Your task to perform on an android device: Show me popular games on the Play Store Image 0: 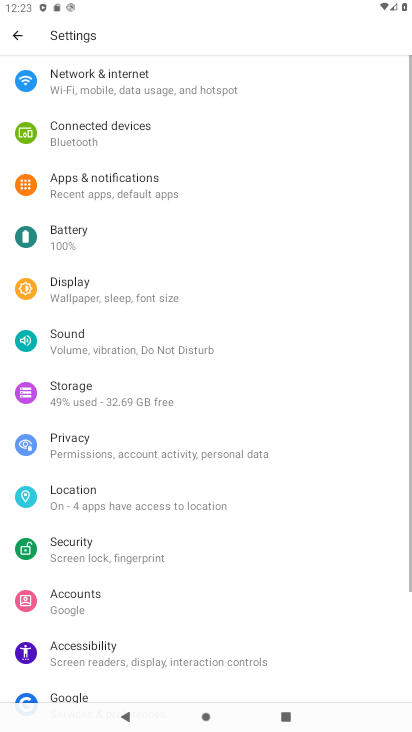
Step 0: press home button
Your task to perform on an android device: Show me popular games on the Play Store Image 1: 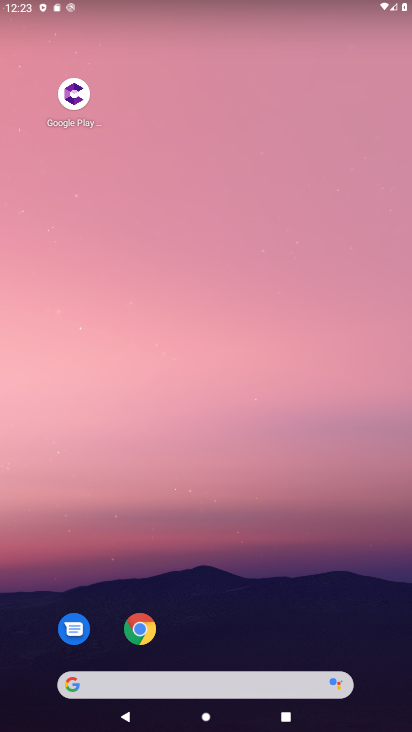
Step 1: drag from (183, 624) to (185, 358)
Your task to perform on an android device: Show me popular games on the Play Store Image 2: 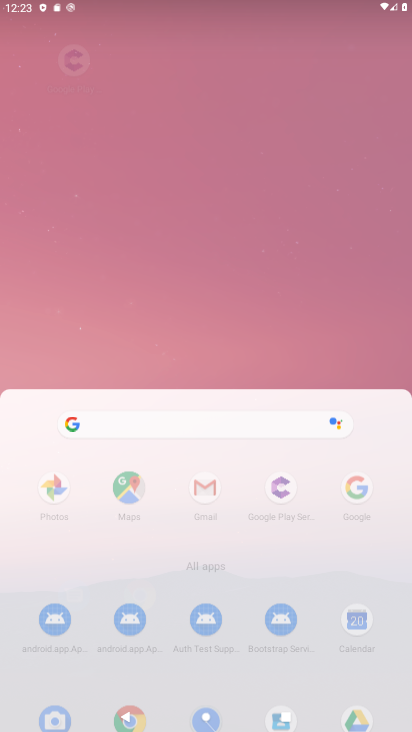
Step 2: drag from (170, 518) to (170, 175)
Your task to perform on an android device: Show me popular games on the Play Store Image 3: 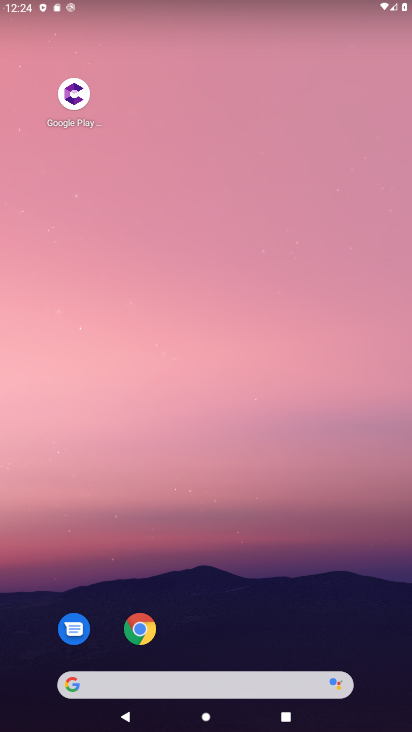
Step 3: drag from (174, 635) to (178, 219)
Your task to perform on an android device: Show me popular games on the Play Store Image 4: 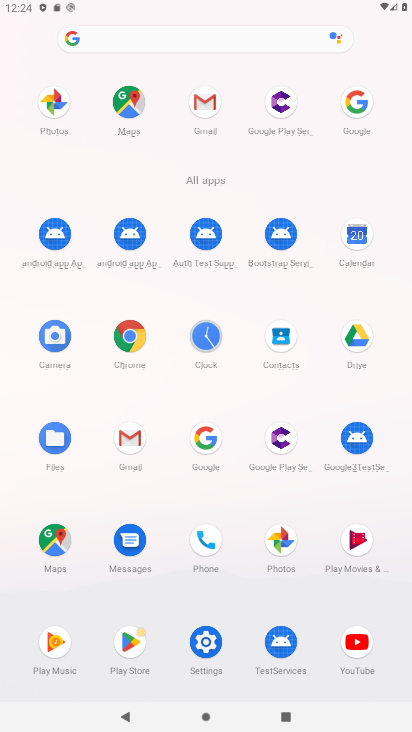
Step 4: click (134, 648)
Your task to perform on an android device: Show me popular games on the Play Store Image 5: 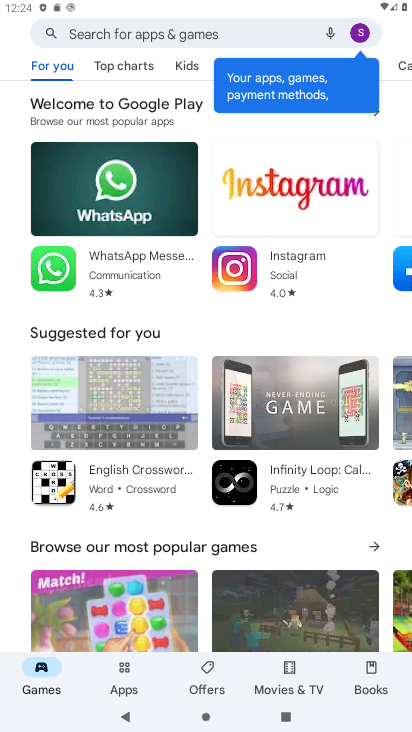
Step 5: click (391, 548)
Your task to perform on an android device: Show me popular games on the Play Store Image 6: 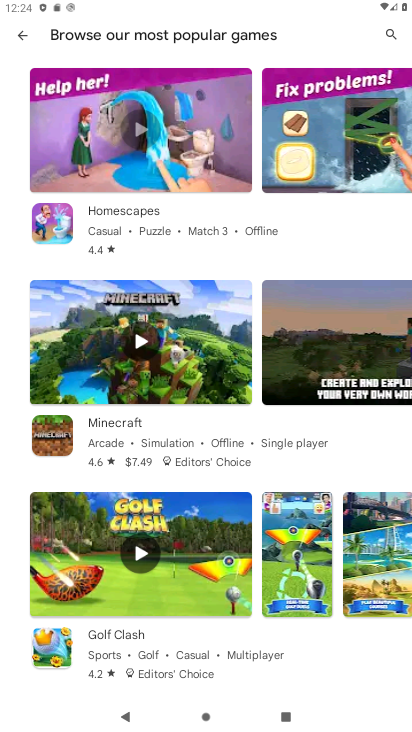
Step 6: task complete